Your task to perform on an android device: Go to Maps Image 0: 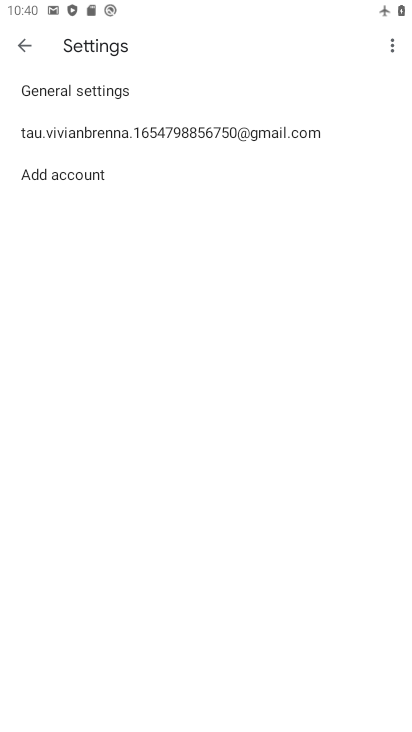
Step 0: press home button
Your task to perform on an android device: Go to Maps Image 1: 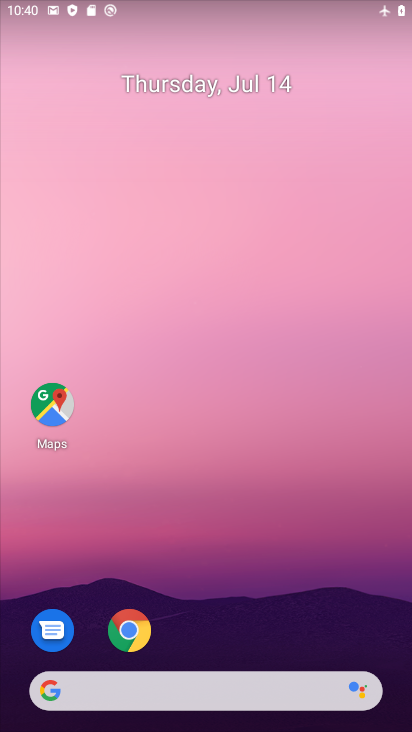
Step 1: click (44, 401)
Your task to perform on an android device: Go to Maps Image 2: 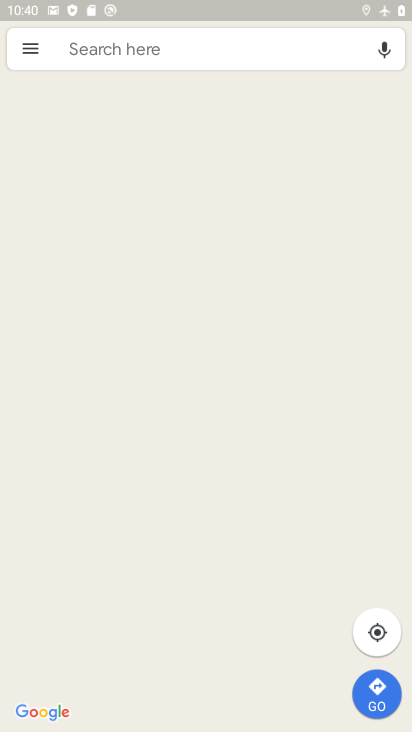
Step 2: press back button
Your task to perform on an android device: Go to Maps Image 3: 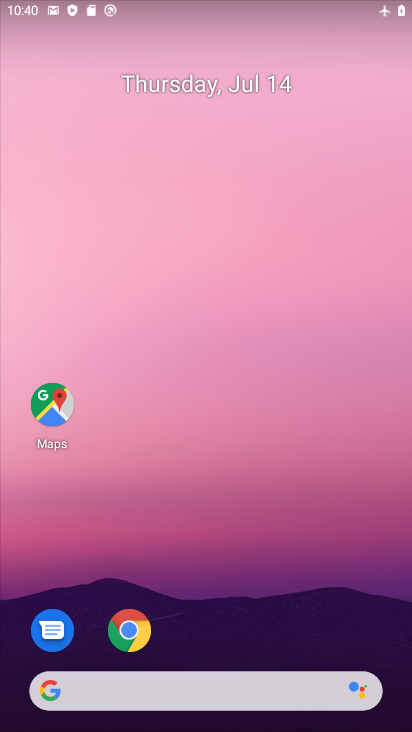
Step 3: click (41, 395)
Your task to perform on an android device: Go to Maps Image 4: 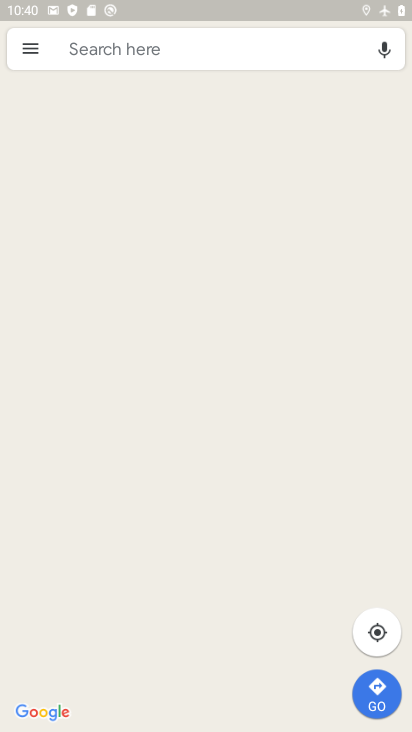
Step 4: task complete